Your task to perform on an android device: Go to Maps Image 0: 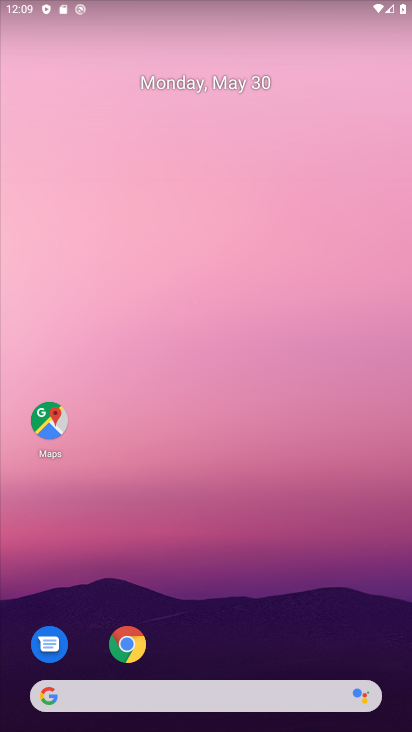
Step 0: click (55, 399)
Your task to perform on an android device: Go to Maps Image 1: 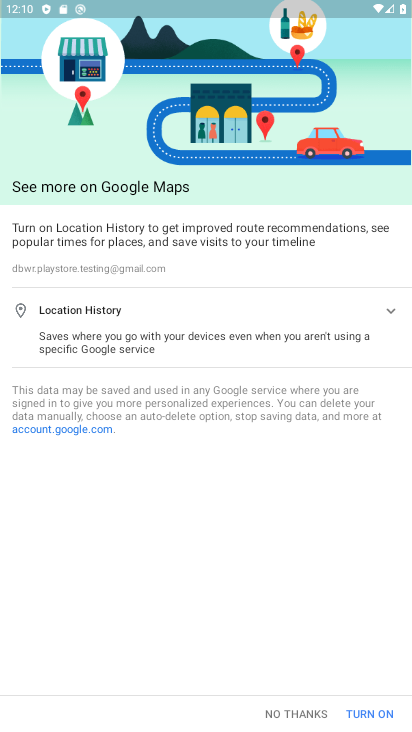
Step 1: click (303, 712)
Your task to perform on an android device: Go to Maps Image 2: 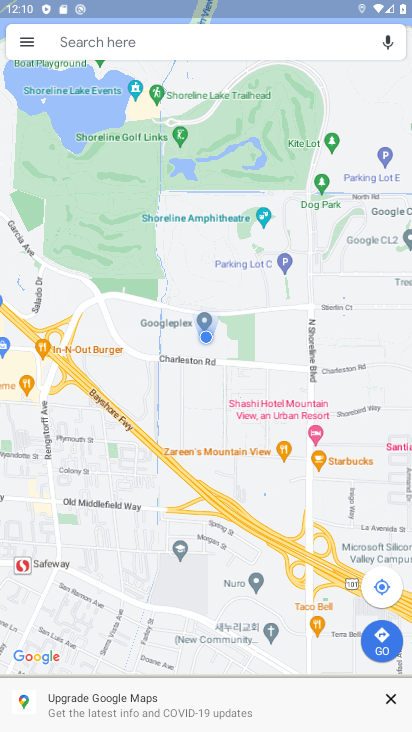
Step 2: task complete